Your task to perform on an android device: add a contact Image 0: 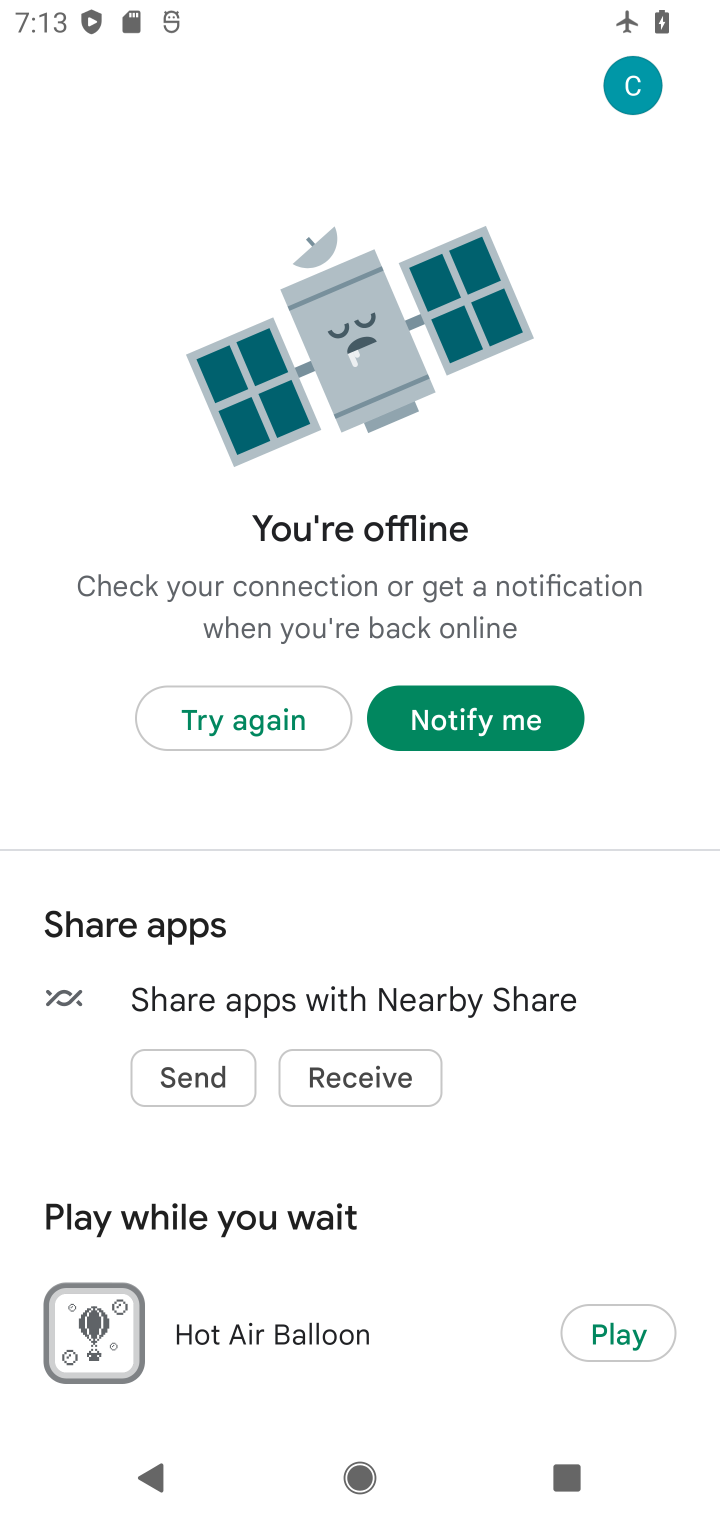
Step 0: press home button
Your task to perform on an android device: add a contact Image 1: 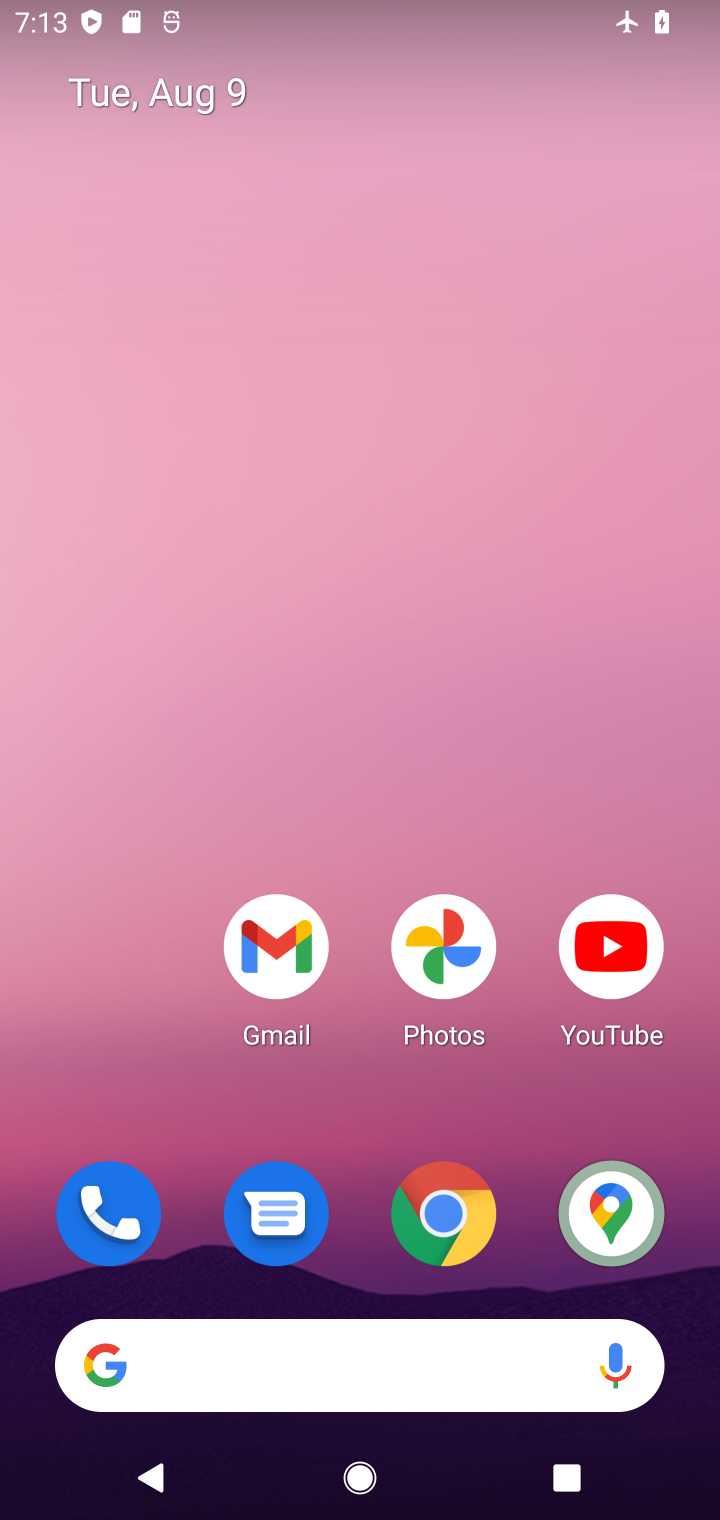
Step 1: drag from (358, 1292) to (247, 32)
Your task to perform on an android device: add a contact Image 2: 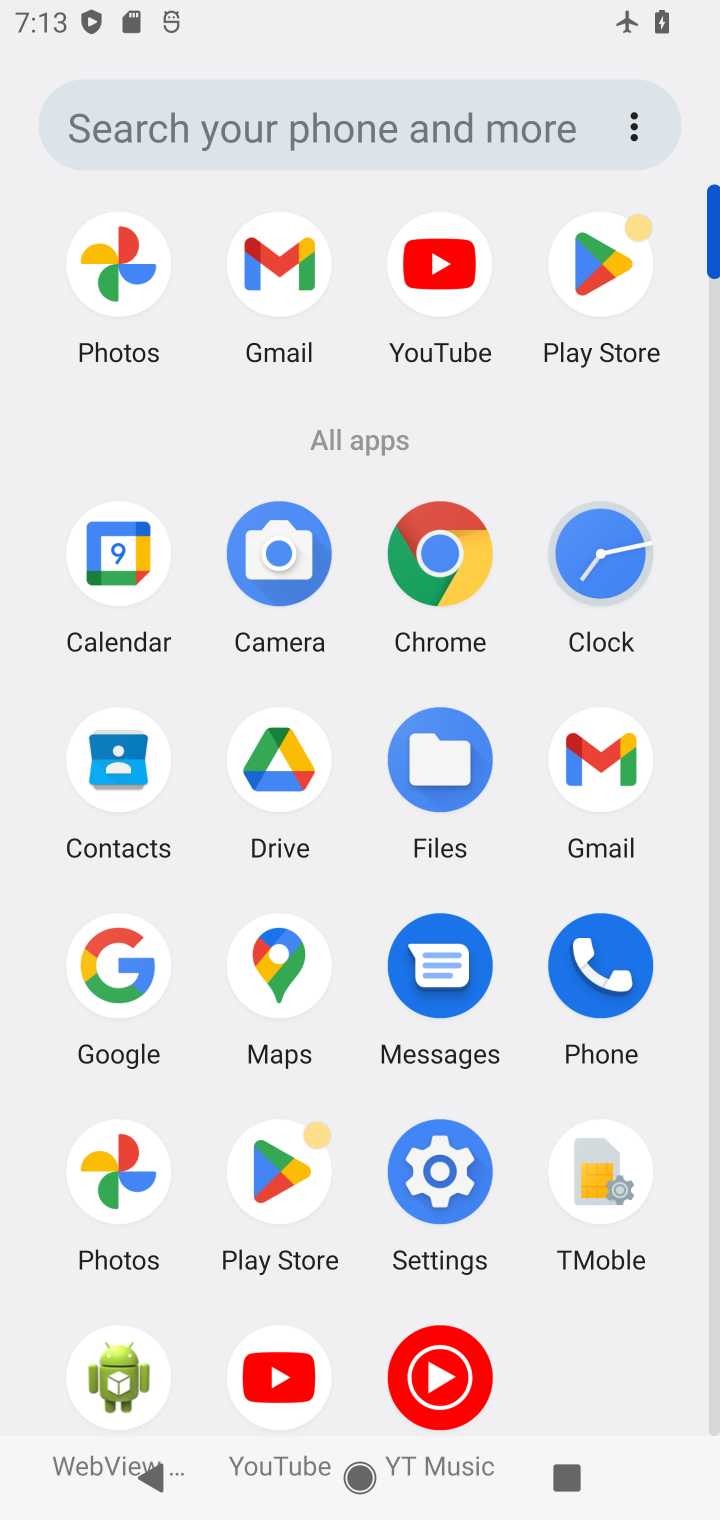
Step 2: click (571, 958)
Your task to perform on an android device: add a contact Image 3: 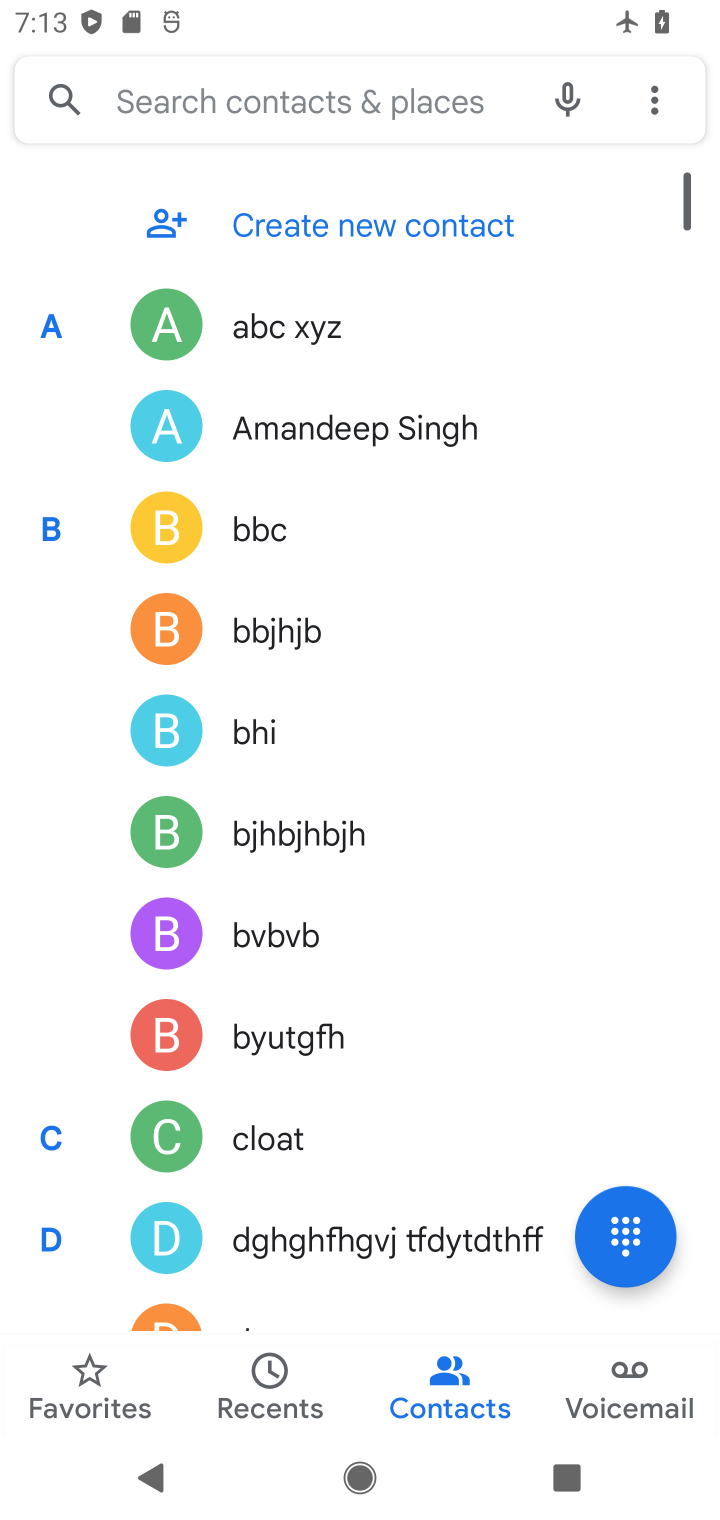
Step 3: click (250, 235)
Your task to perform on an android device: add a contact Image 4: 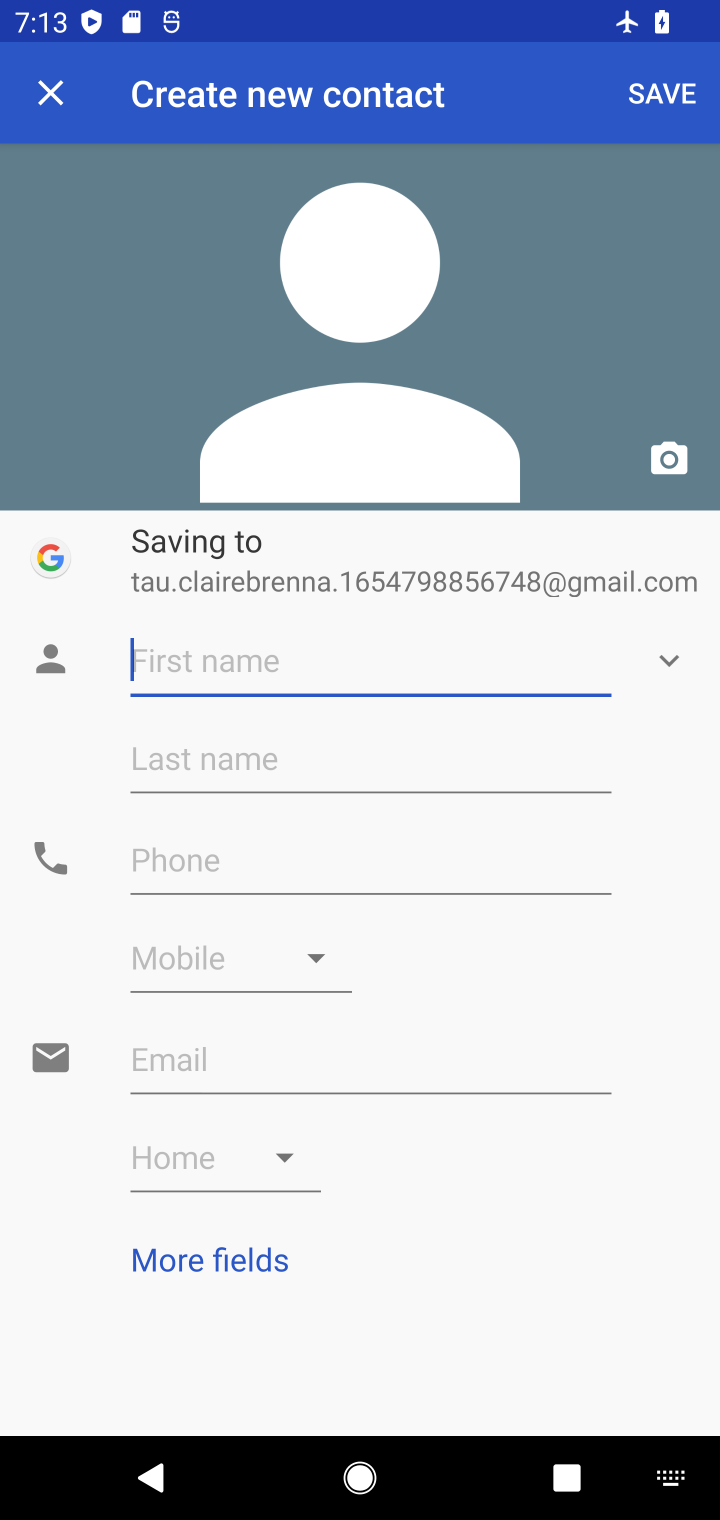
Step 4: type "mvv"
Your task to perform on an android device: add a contact Image 5: 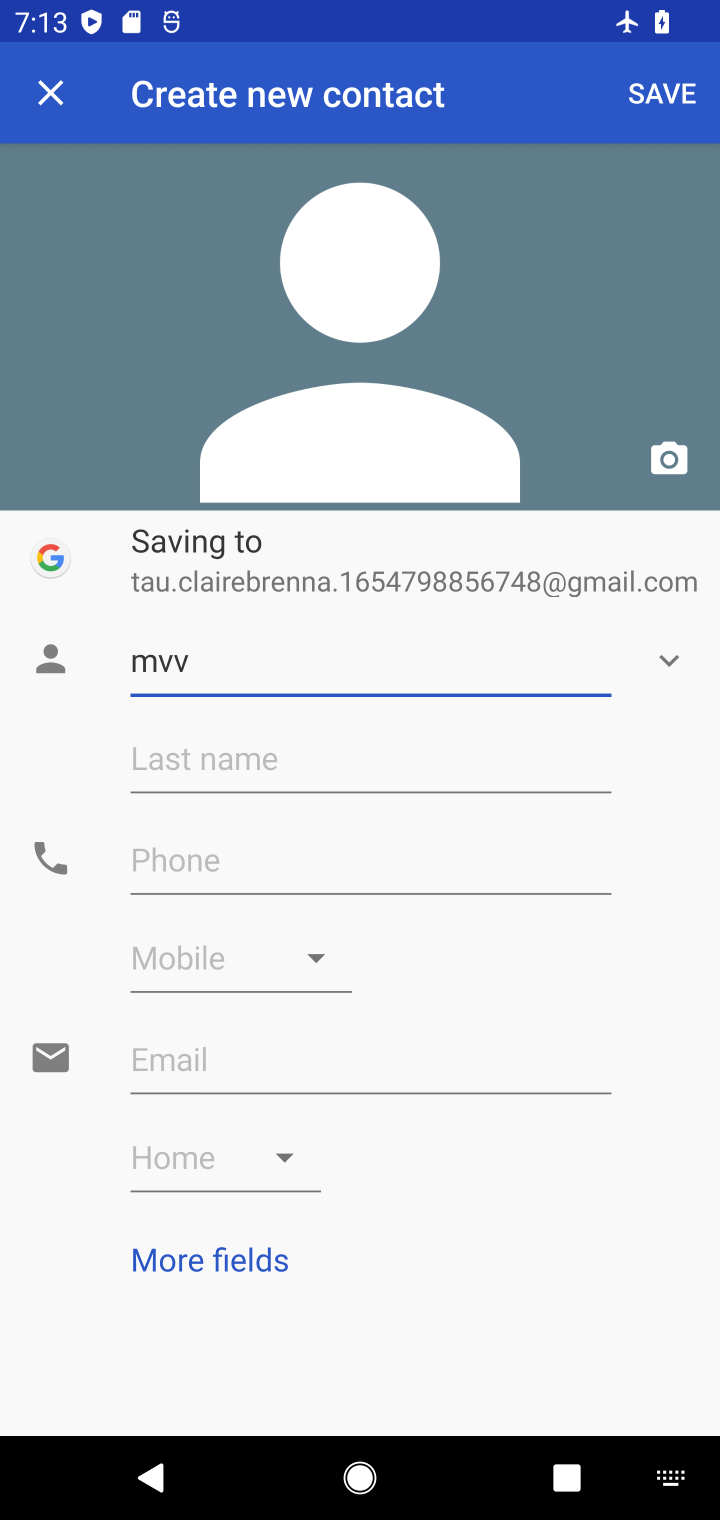
Step 5: click (431, 853)
Your task to perform on an android device: add a contact Image 6: 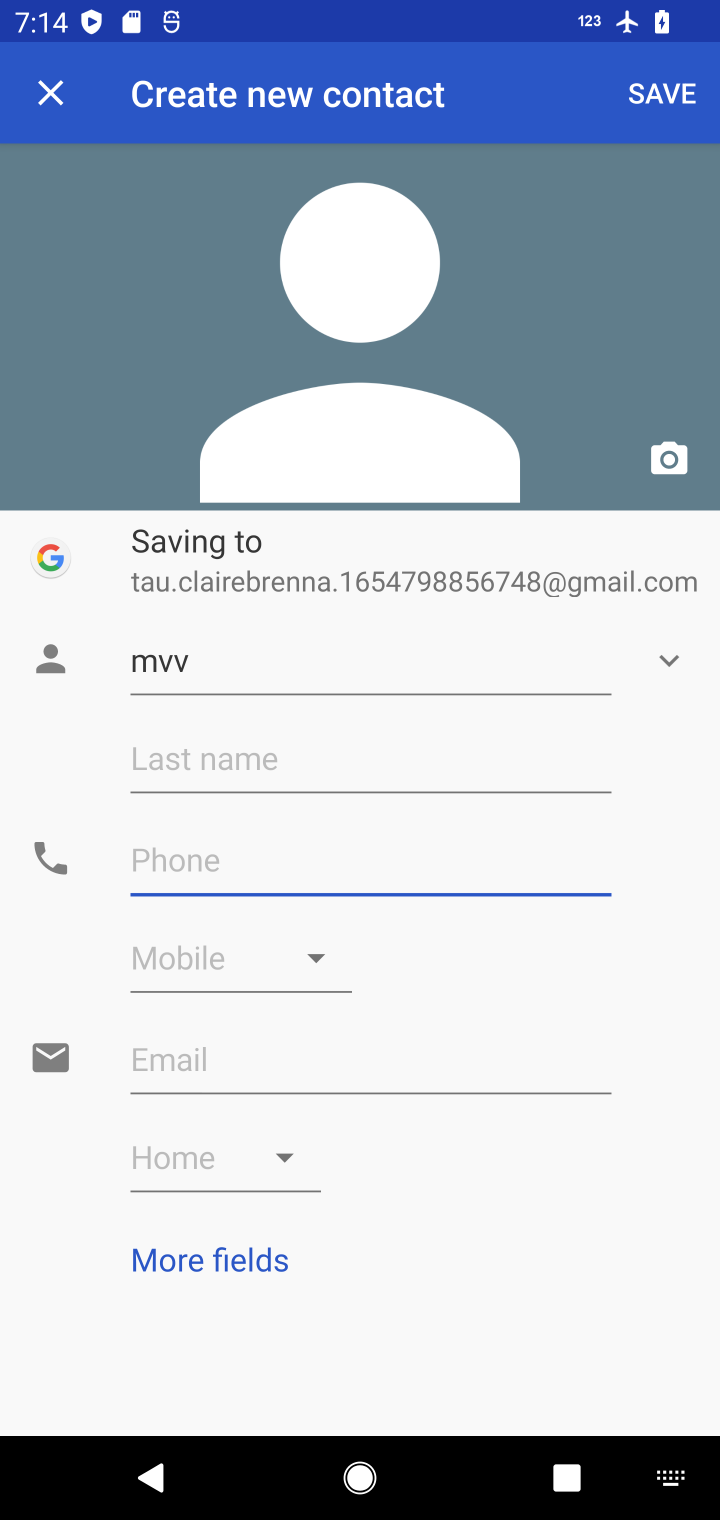
Step 6: type "5434"
Your task to perform on an android device: add a contact Image 7: 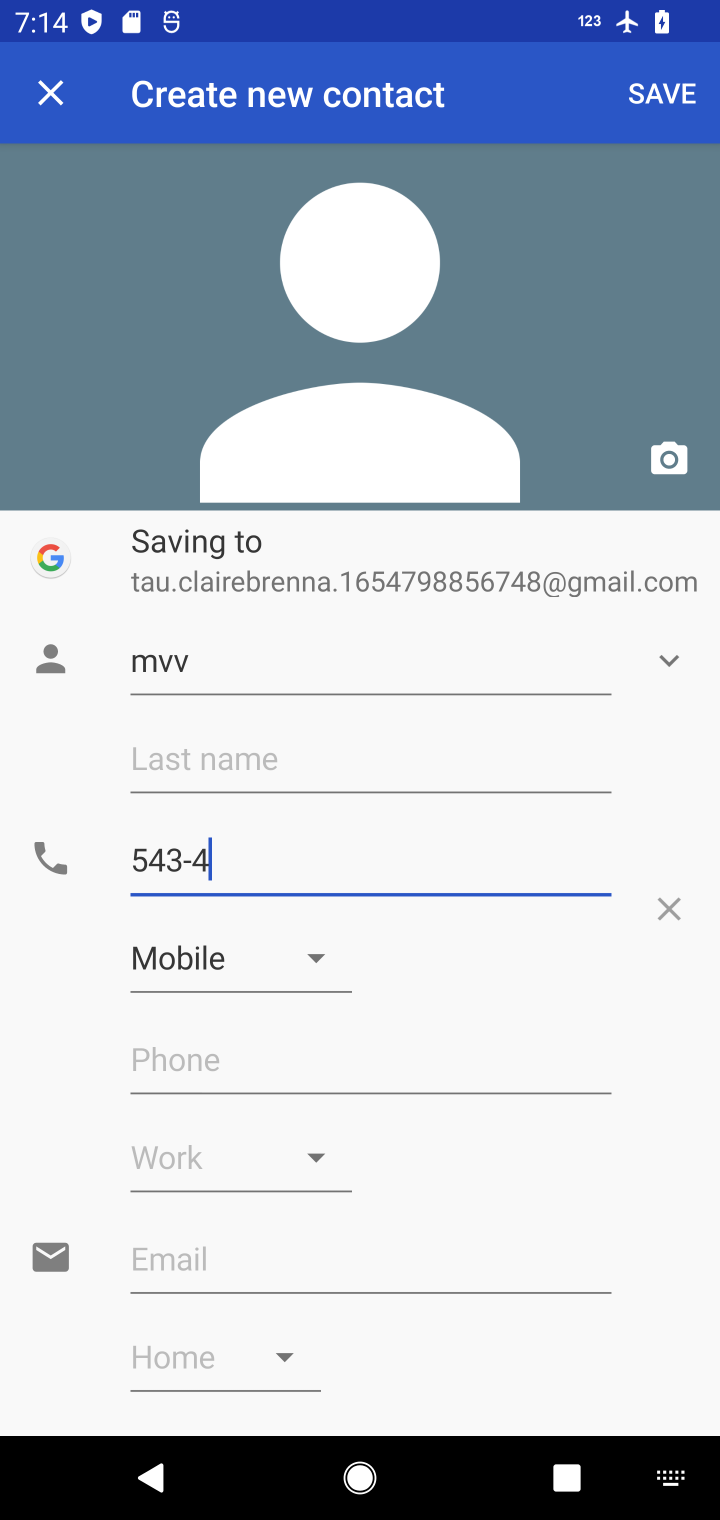
Step 7: click (656, 99)
Your task to perform on an android device: add a contact Image 8: 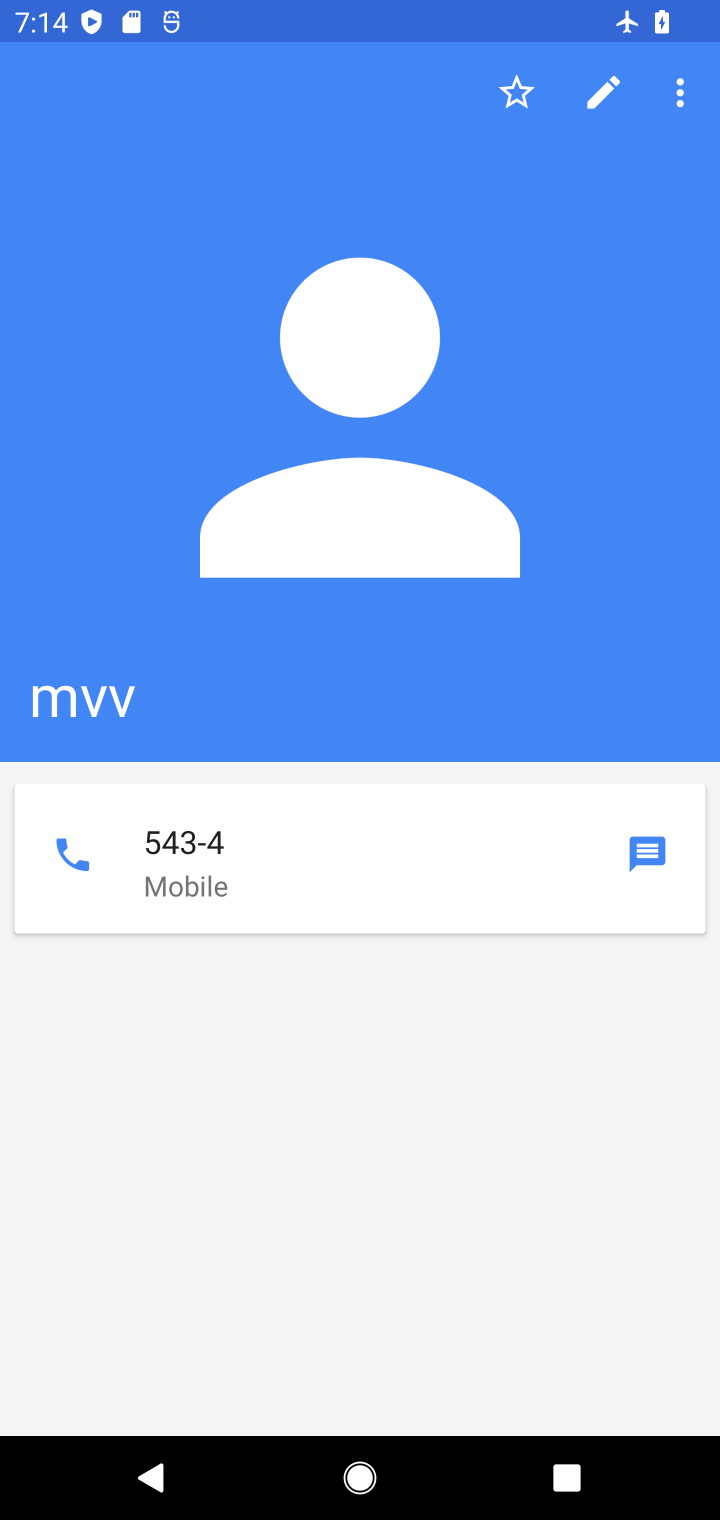
Step 8: task complete